Your task to perform on an android device: toggle javascript in the chrome app Image 0: 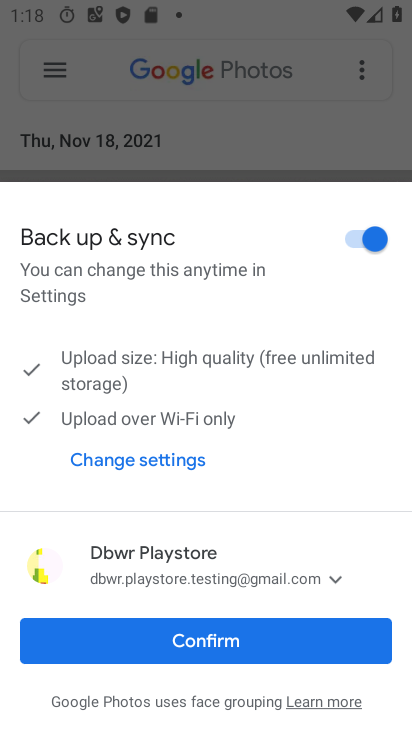
Step 0: press home button
Your task to perform on an android device: toggle javascript in the chrome app Image 1: 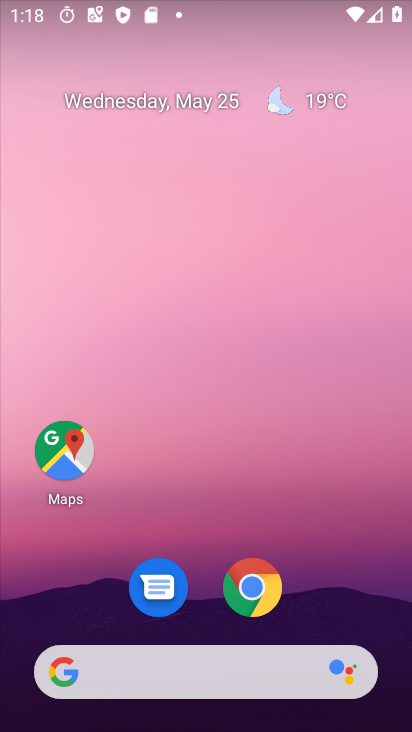
Step 1: click (253, 588)
Your task to perform on an android device: toggle javascript in the chrome app Image 2: 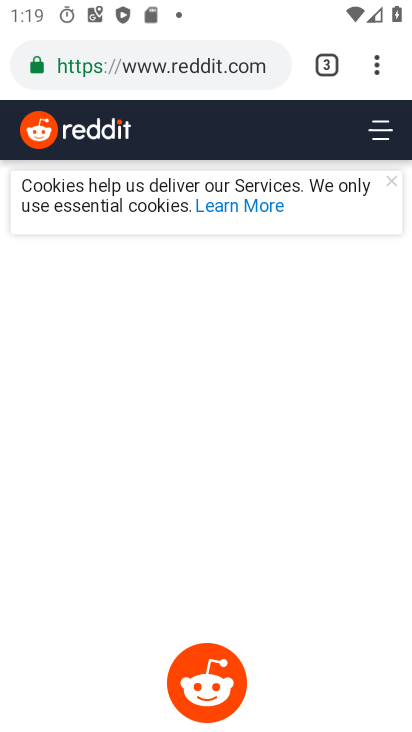
Step 2: click (380, 73)
Your task to perform on an android device: toggle javascript in the chrome app Image 3: 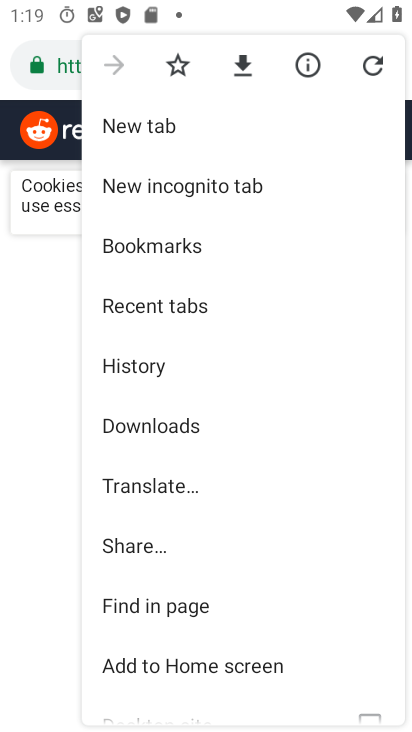
Step 3: drag from (177, 635) to (174, 362)
Your task to perform on an android device: toggle javascript in the chrome app Image 4: 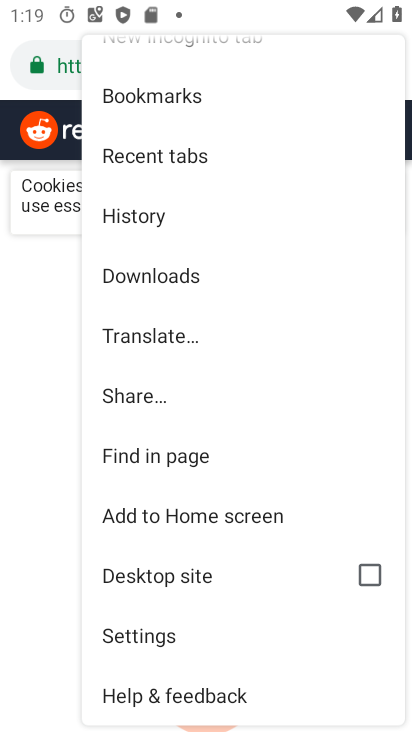
Step 4: click (166, 635)
Your task to perform on an android device: toggle javascript in the chrome app Image 5: 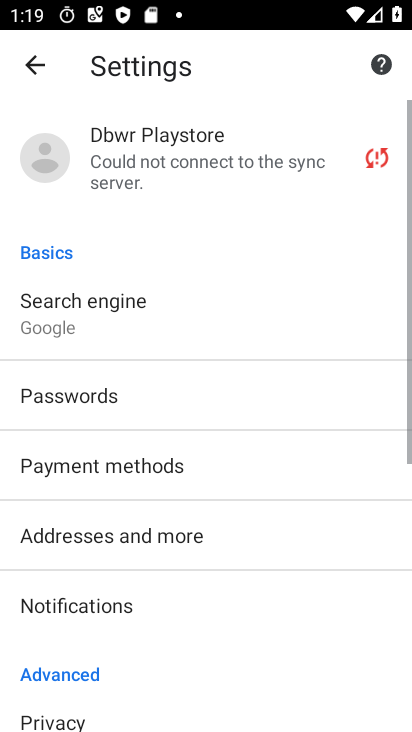
Step 5: drag from (152, 588) to (152, 306)
Your task to perform on an android device: toggle javascript in the chrome app Image 6: 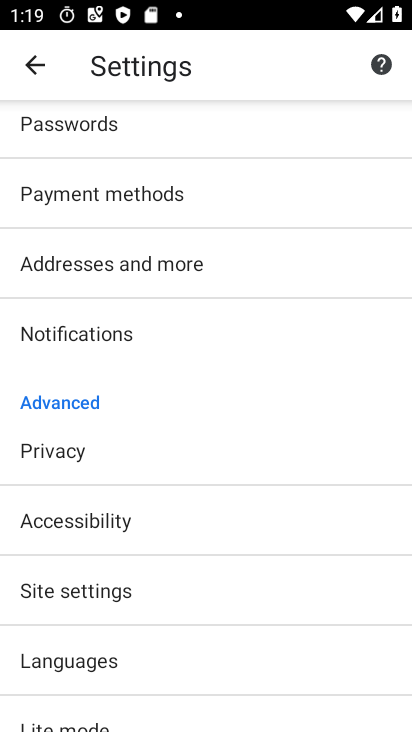
Step 6: drag from (100, 677) to (102, 336)
Your task to perform on an android device: toggle javascript in the chrome app Image 7: 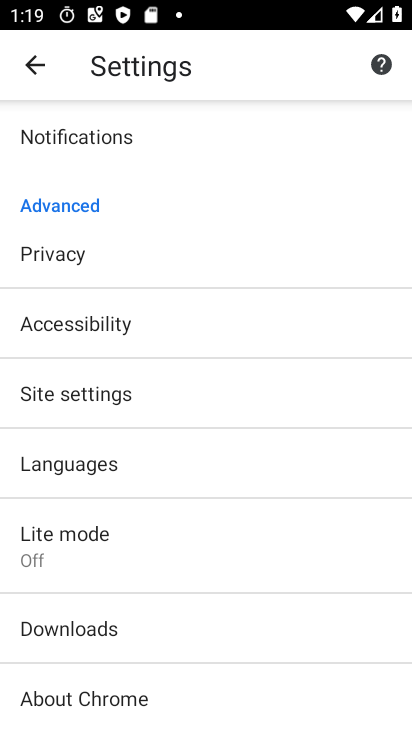
Step 7: click (60, 390)
Your task to perform on an android device: toggle javascript in the chrome app Image 8: 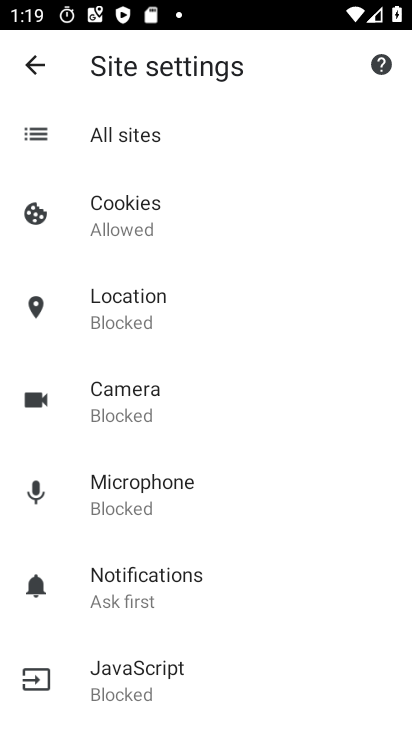
Step 8: click (146, 671)
Your task to perform on an android device: toggle javascript in the chrome app Image 9: 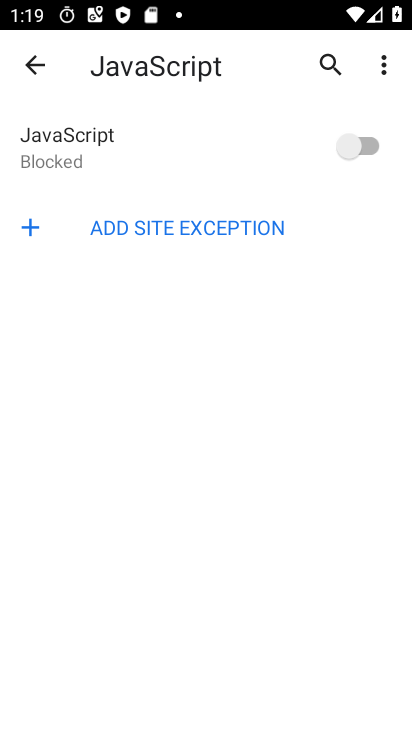
Step 9: click (367, 146)
Your task to perform on an android device: toggle javascript in the chrome app Image 10: 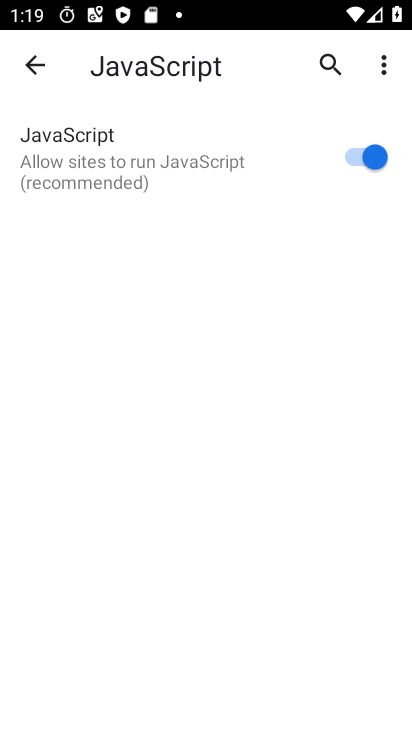
Step 10: task complete